Your task to perform on an android device: change the clock display to analog Image 0: 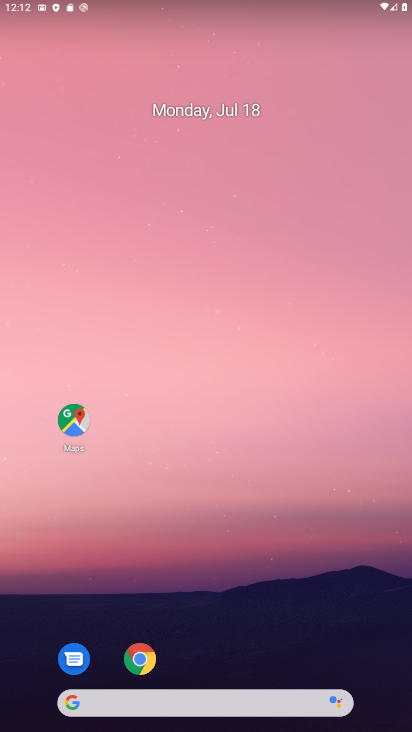
Step 0: drag from (214, 667) to (215, 3)
Your task to perform on an android device: change the clock display to analog Image 1: 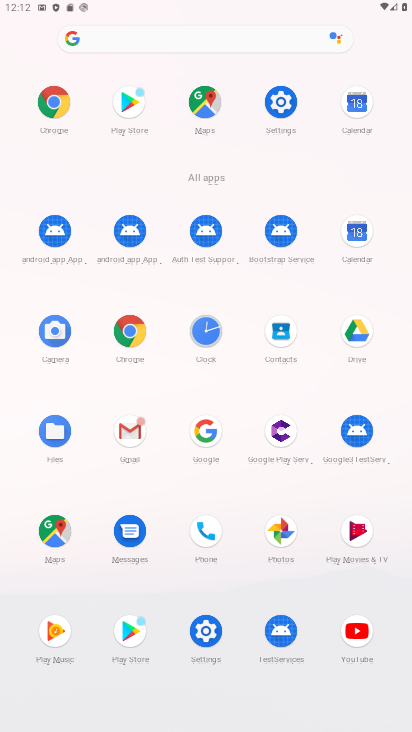
Step 1: click (209, 329)
Your task to perform on an android device: change the clock display to analog Image 2: 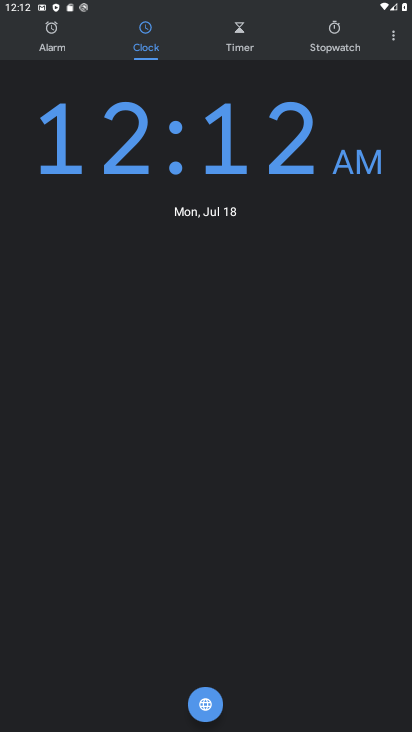
Step 2: click (391, 29)
Your task to perform on an android device: change the clock display to analog Image 3: 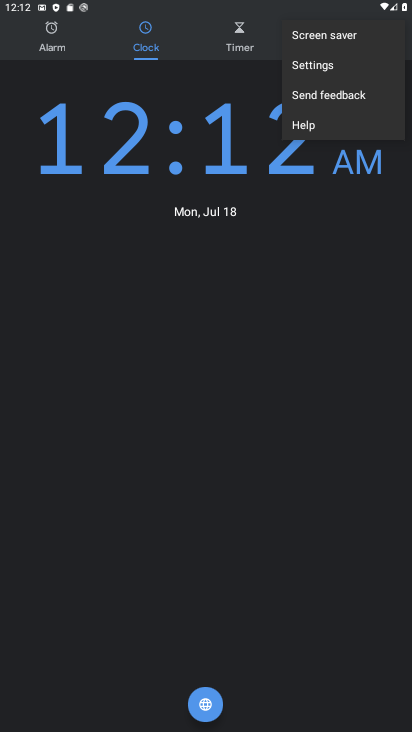
Step 3: click (312, 69)
Your task to perform on an android device: change the clock display to analog Image 4: 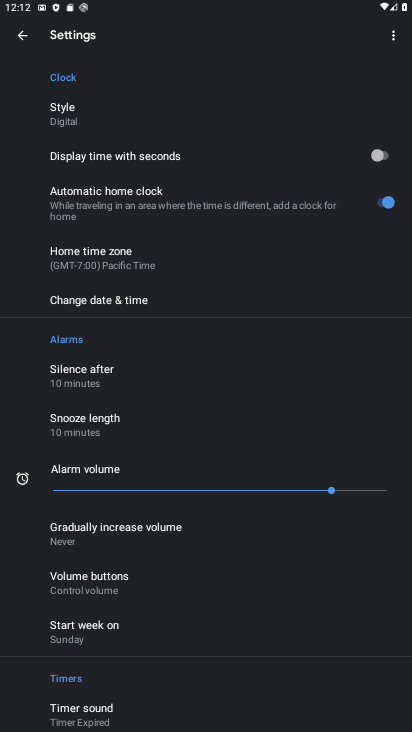
Step 4: click (71, 126)
Your task to perform on an android device: change the clock display to analog Image 5: 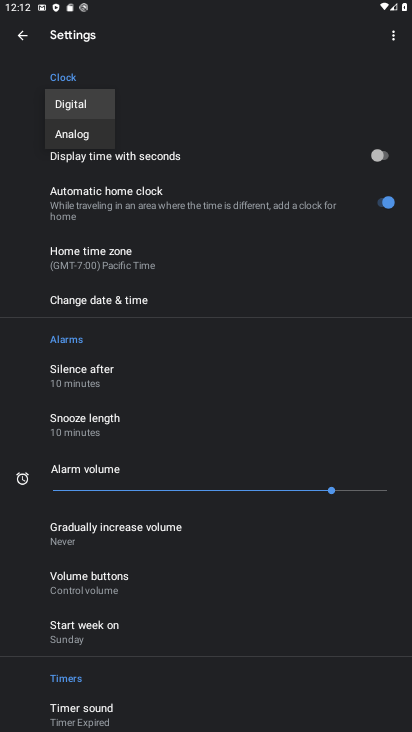
Step 5: click (88, 140)
Your task to perform on an android device: change the clock display to analog Image 6: 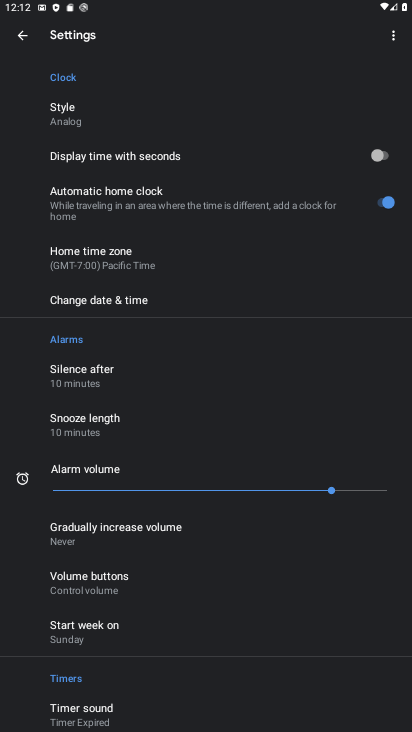
Step 6: task complete